Your task to perform on an android device: add a contact in the contacts app Image 0: 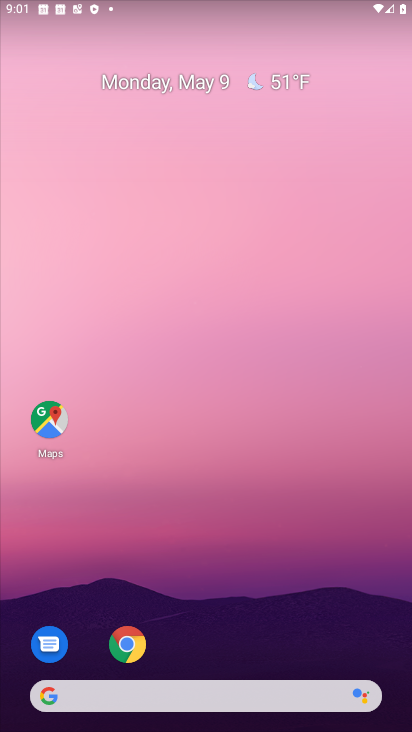
Step 0: drag from (202, 666) to (123, 30)
Your task to perform on an android device: add a contact in the contacts app Image 1: 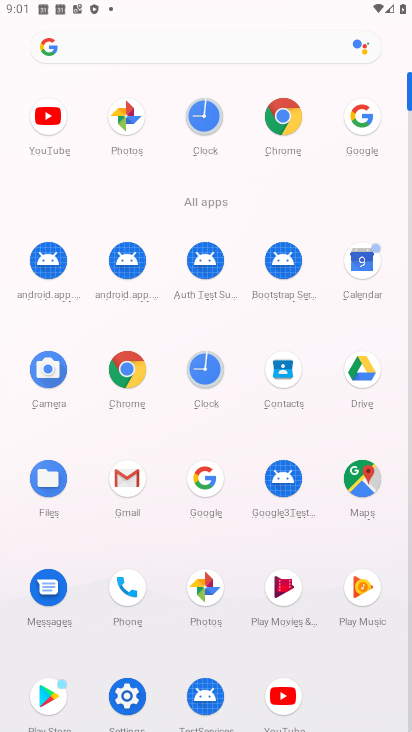
Step 1: click (117, 586)
Your task to perform on an android device: add a contact in the contacts app Image 2: 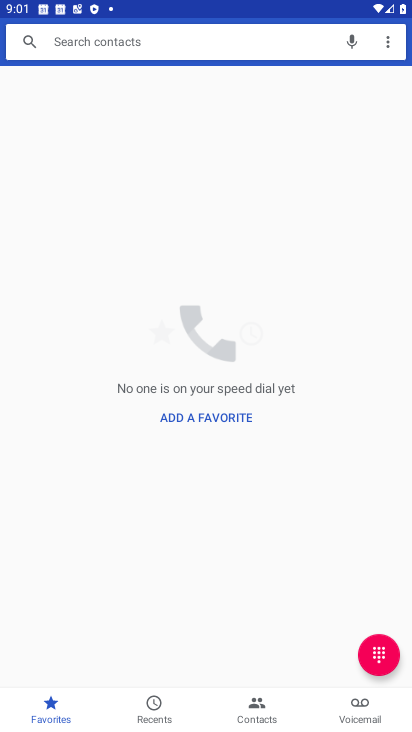
Step 2: click (167, 717)
Your task to perform on an android device: add a contact in the contacts app Image 3: 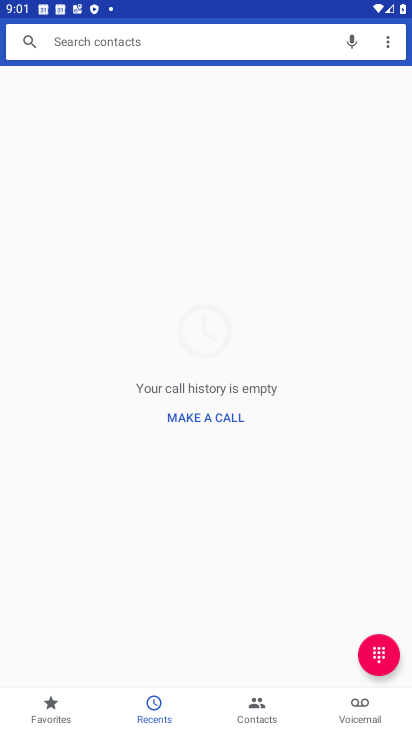
Step 3: click (216, 707)
Your task to perform on an android device: add a contact in the contacts app Image 4: 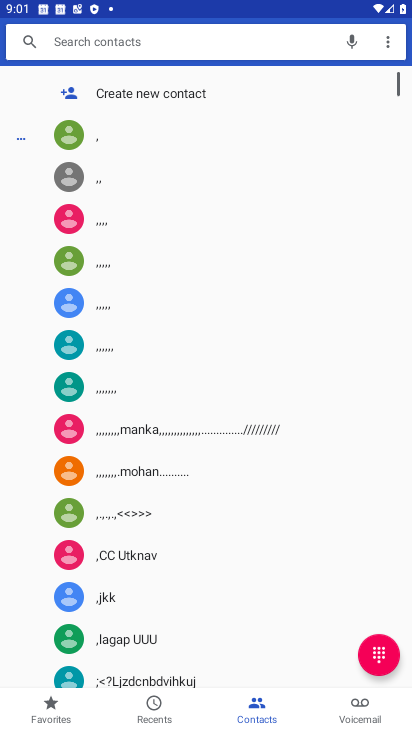
Step 4: click (108, 85)
Your task to perform on an android device: add a contact in the contacts app Image 5: 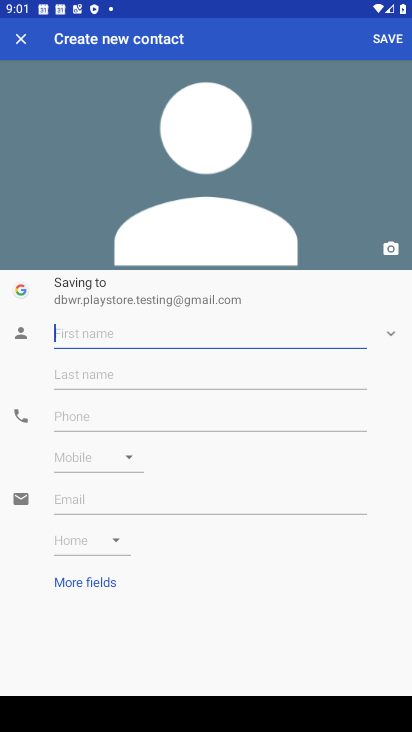
Step 5: type "ol"
Your task to perform on an android device: add a contact in the contacts app Image 6: 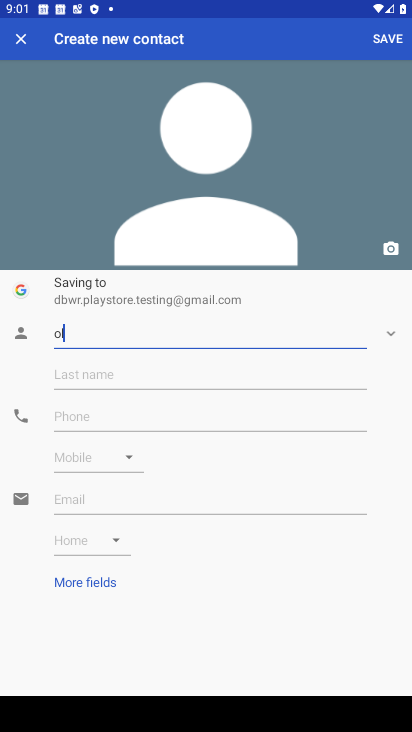
Step 6: click (204, 425)
Your task to perform on an android device: add a contact in the contacts app Image 7: 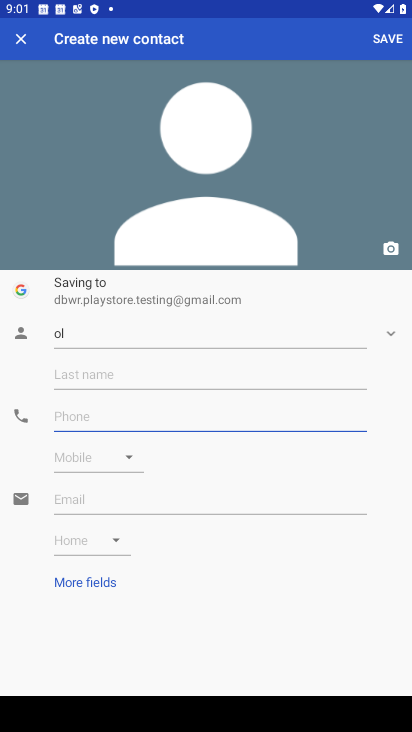
Step 7: type "98765434"
Your task to perform on an android device: add a contact in the contacts app Image 8: 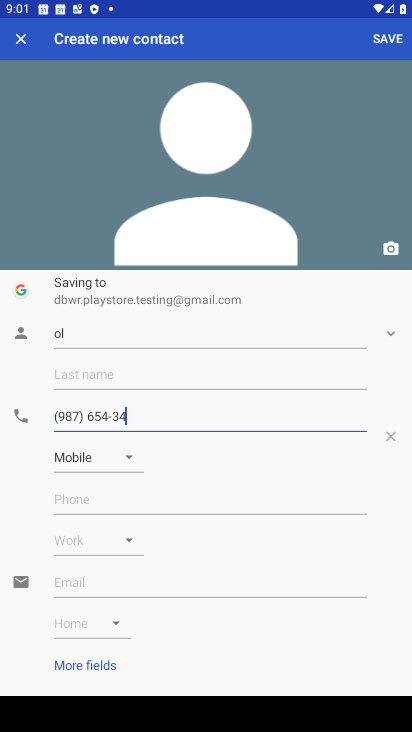
Step 8: click (364, 36)
Your task to perform on an android device: add a contact in the contacts app Image 9: 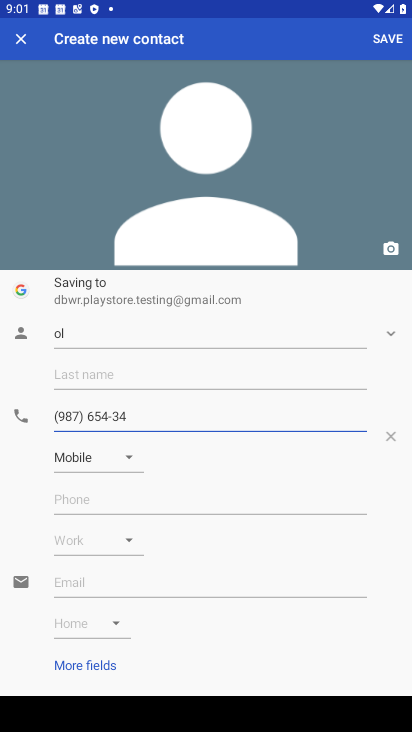
Step 9: click (390, 38)
Your task to perform on an android device: add a contact in the contacts app Image 10: 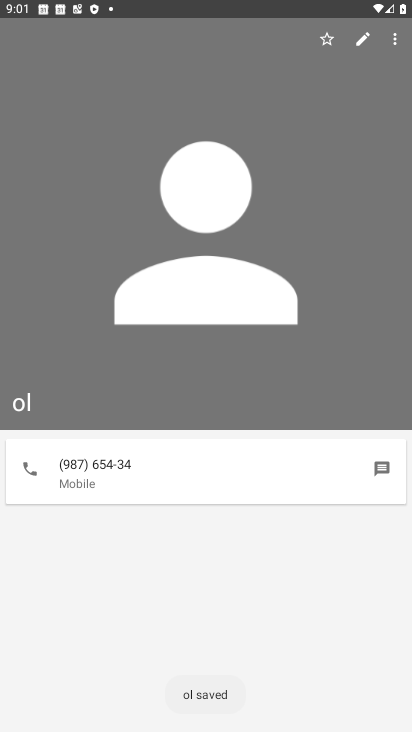
Step 10: task complete